Your task to perform on an android device: turn off airplane mode Image 0: 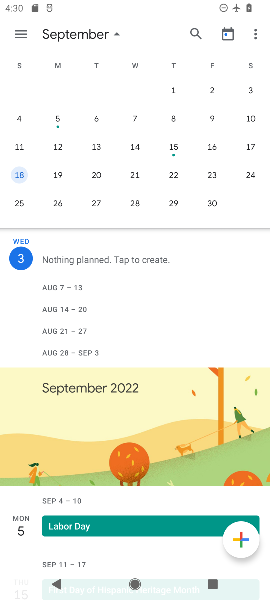
Step 0: press home button
Your task to perform on an android device: turn off airplane mode Image 1: 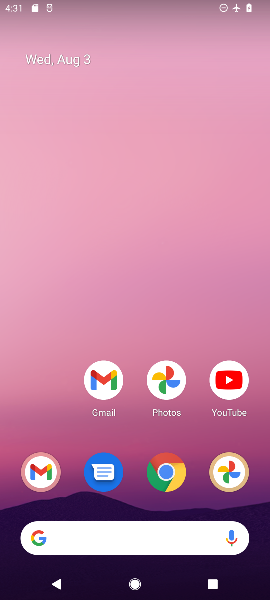
Step 1: drag from (185, 493) to (175, 405)
Your task to perform on an android device: turn off airplane mode Image 2: 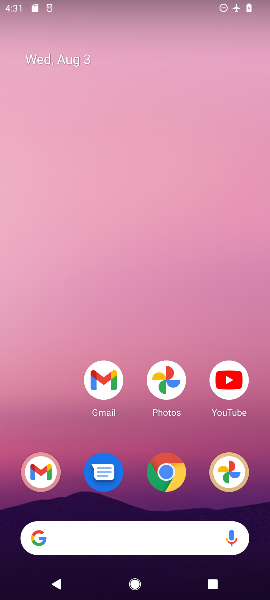
Step 2: drag from (133, 8) to (221, 490)
Your task to perform on an android device: turn off airplane mode Image 3: 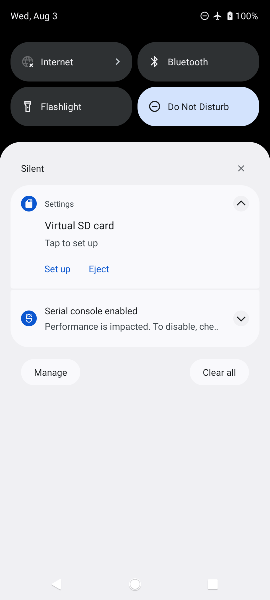
Step 3: drag from (144, 141) to (192, 509)
Your task to perform on an android device: turn off airplane mode Image 4: 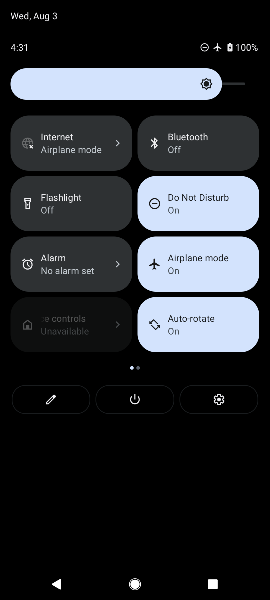
Step 4: click (211, 264)
Your task to perform on an android device: turn off airplane mode Image 5: 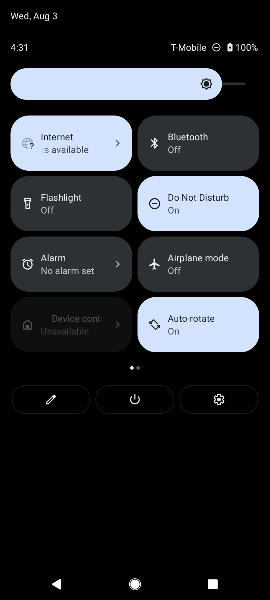
Step 5: task complete